Your task to perform on an android device: open device folders in google photos Image 0: 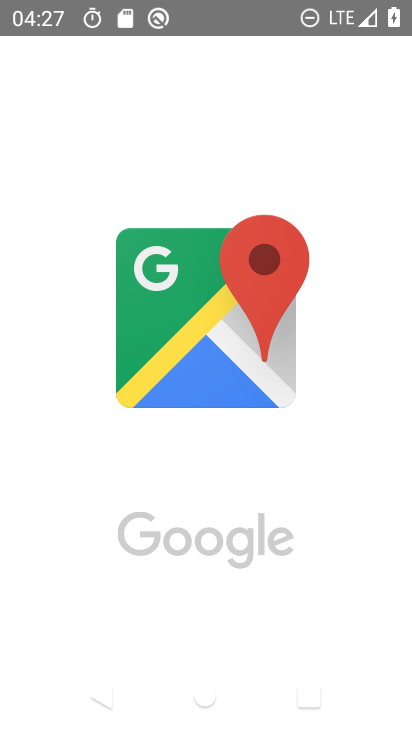
Step 0: drag from (217, 584) to (240, 441)
Your task to perform on an android device: open device folders in google photos Image 1: 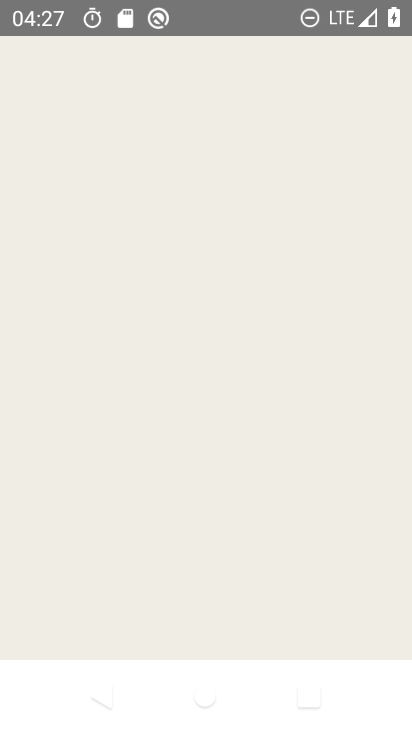
Step 1: press home button
Your task to perform on an android device: open device folders in google photos Image 2: 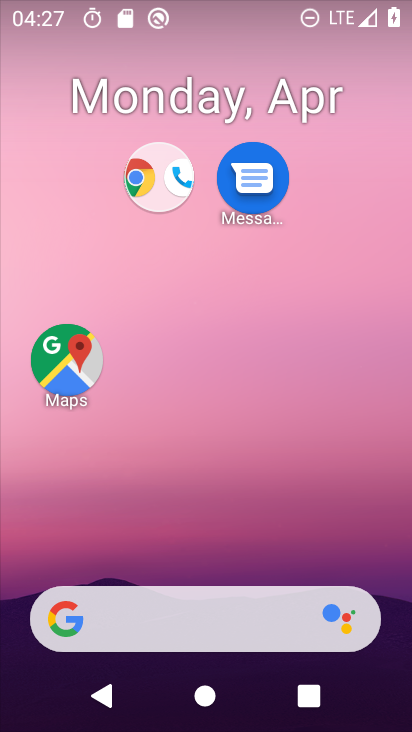
Step 2: drag from (286, 505) to (307, 54)
Your task to perform on an android device: open device folders in google photos Image 3: 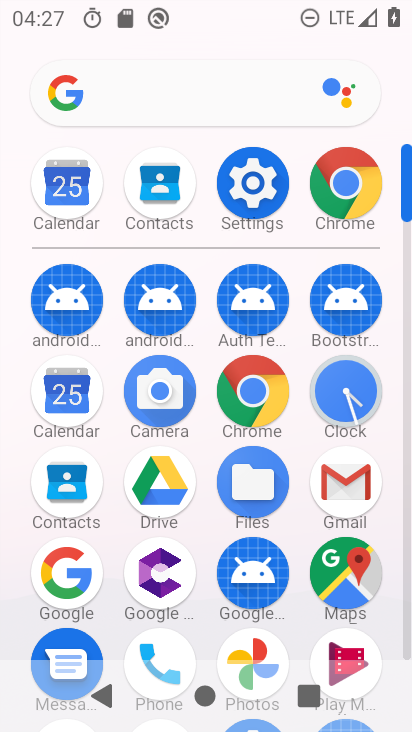
Step 3: drag from (276, 586) to (297, 153)
Your task to perform on an android device: open device folders in google photos Image 4: 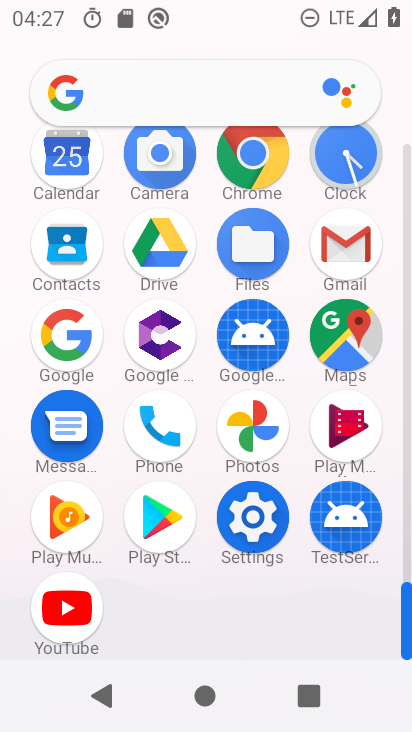
Step 4: click (255, 439)
Your task to perform on an android device: open device folders in google photos Image 5: 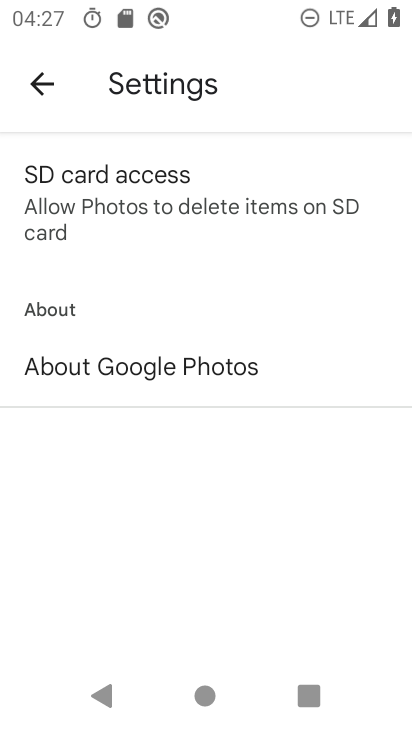
Step 5: press back button
Your task to perform on an android device: open device folders in google photos Image 6: 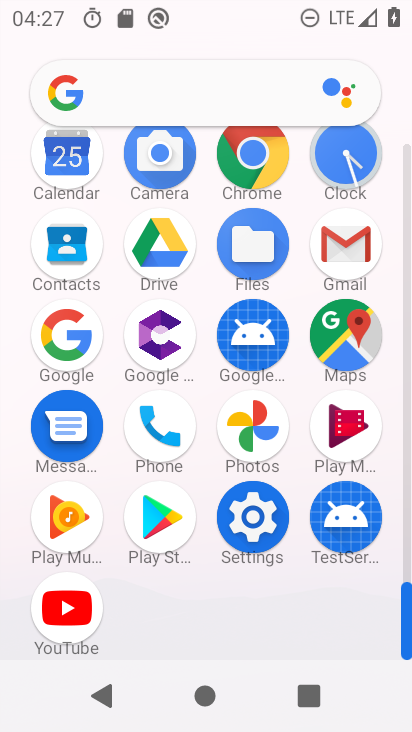
Step 6: click (264, 422)
Your task to perform on an android device: open device folders in google photos Image 7: 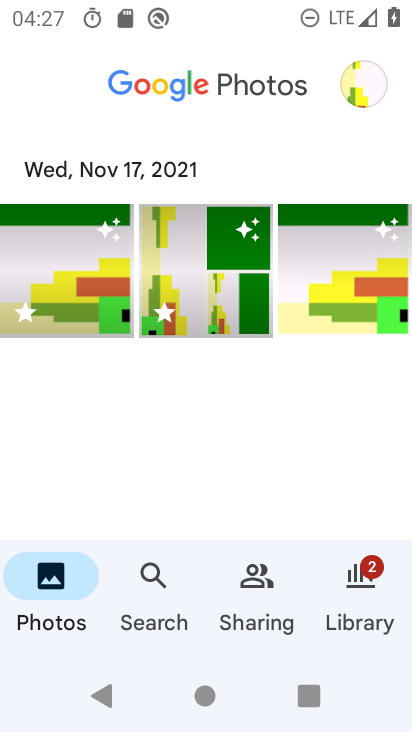
Step 7: click (362, 584)
Your task to perform on an android device: open device folders in google photos Image 8: 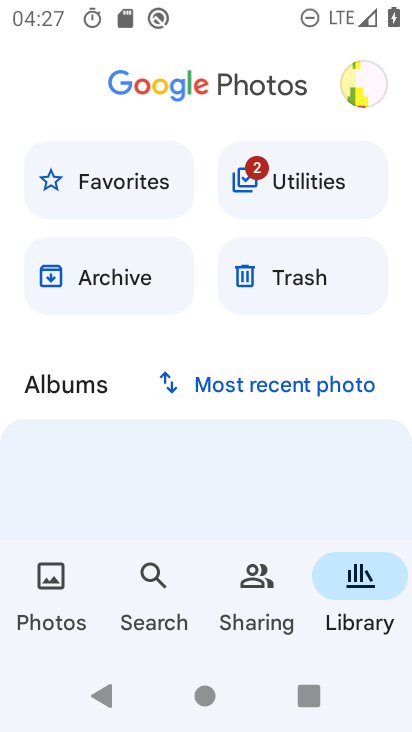
Step 8: click (364, 95)
Your task to perform on an android device: open device folders in google photos Image 9: 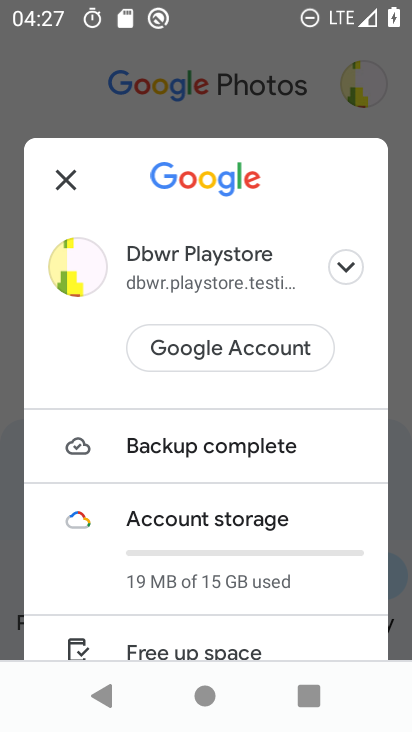
Step 9: task complete